Your task to perform on an android device: turn vacation reply on in the gmail app Image 0: 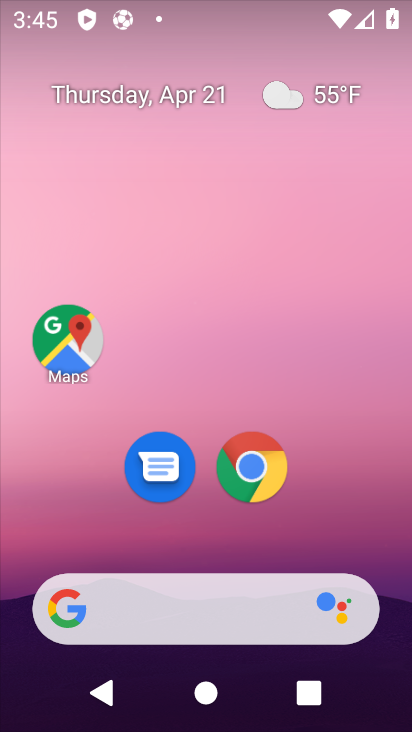
Step 0: press home button
Your task to perform on an android device: turn vacation reply on in the gmail app Image 1: 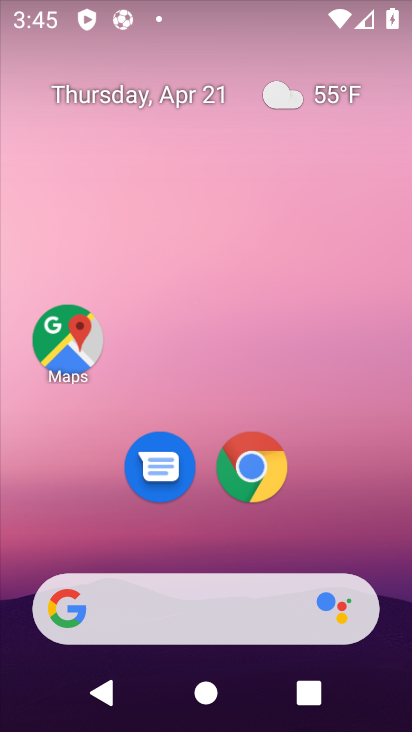
Step 1: drag from (225, 544) to (211, 238)
Your task to perform on an android device: turn vacation reply on in the gmail app Image 2: 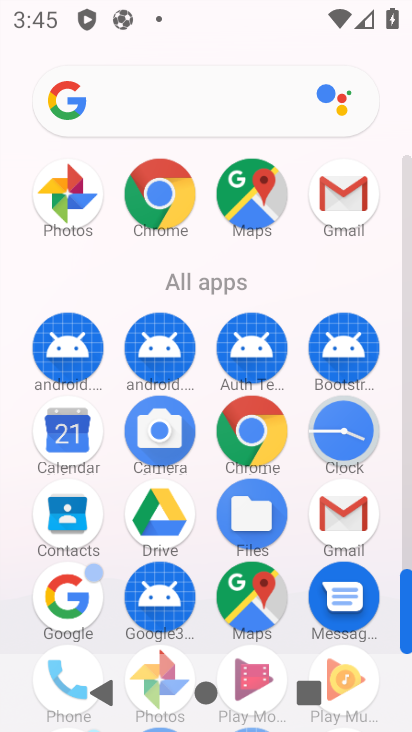
Step 2: drag from (257, 568) to (246, 266)
Your task to perform on an android device: turn vacation reply on in the gmail app Image 3: 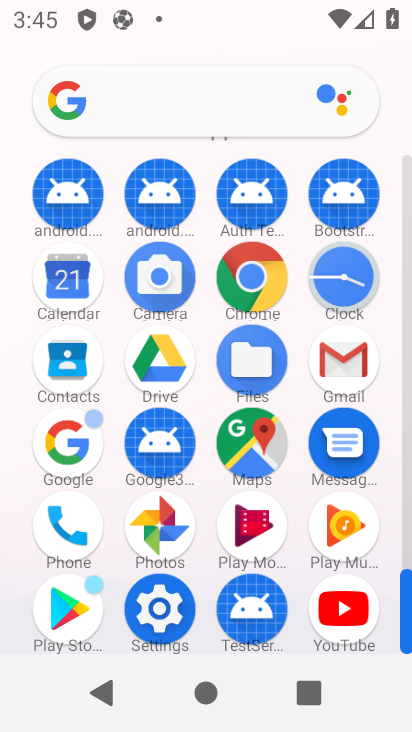
Step 3: drag from (237, 251) to (245, 384)
Your task to perform on an android device: turn vacation reply on in the gmail app Image 4: 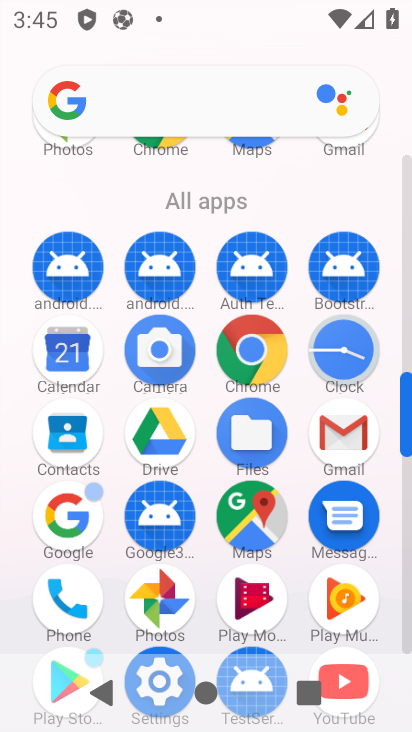
Step 4: click (333, 426)
Your task to perform on an android device: turn vacation reply on in the gmail app Image 5: 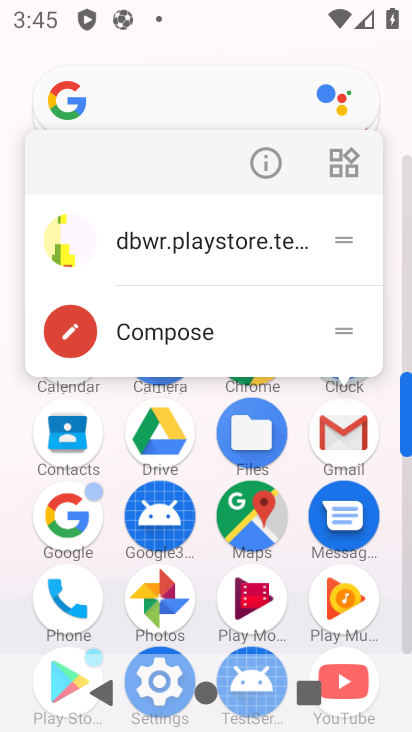
Step 5: click (342, 424)
Your task to perform on an android device: turn vacation reply on in the gmail app Image 6: 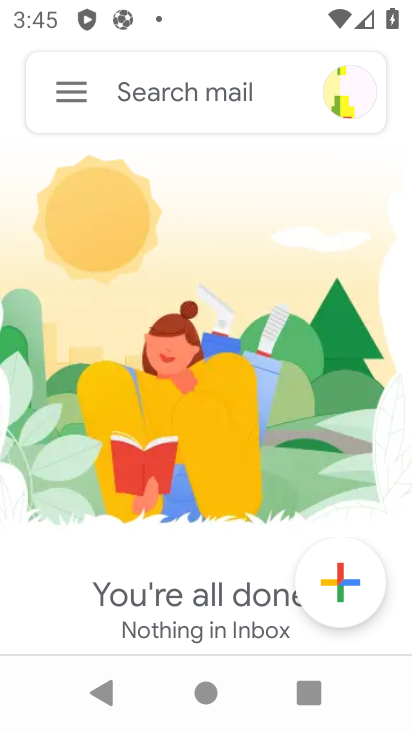
Step 6: click (52, 103)
Your task to perform on an android device: turn vacation reply on in the gmail app Image 7: 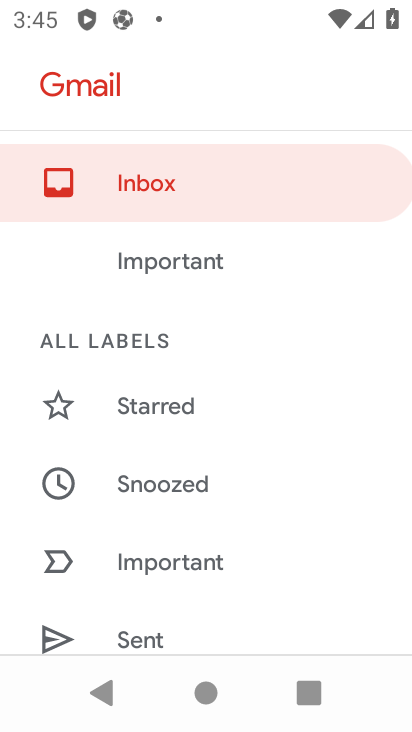
Step 7: drag from (202, 566) to (183, 256)
Your task to perform on an android device: turn vacation reply on in the gmail app Image 8: 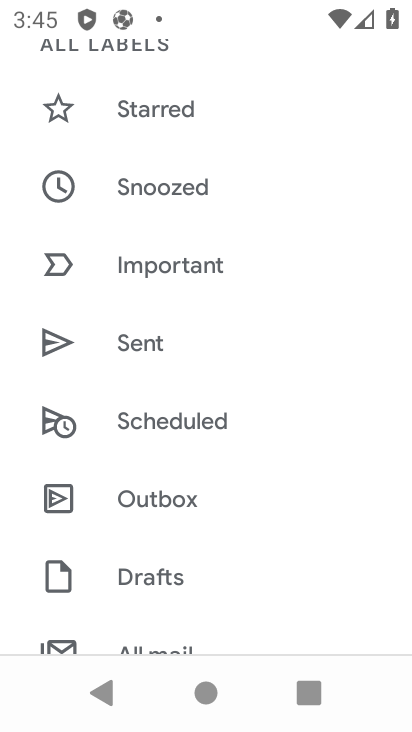
Step 8: drag from (186, 469) to (215, 188)
Your task to perform on an android device: turn vacation reply on in the gmail app Image 9: 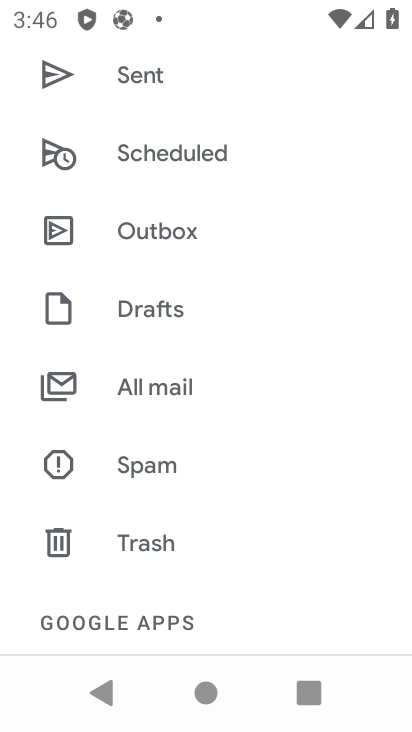
Step 9: drag from (193, 579) to (219, 210)
Your task to perform on an android device: turn vacation reply on in the gmail app Image 10: 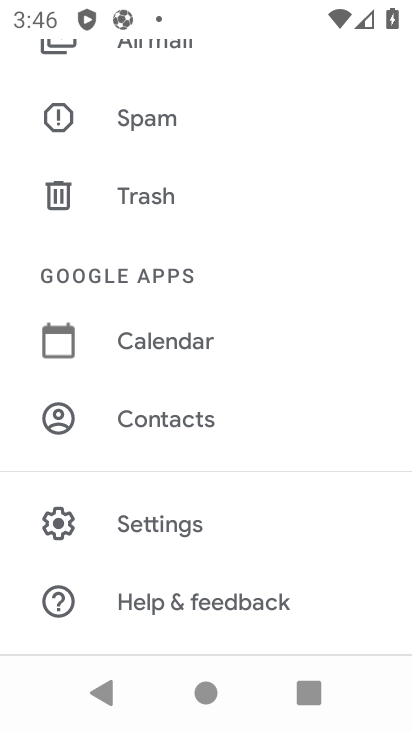
Step 10: drag from (180, 448) to (193, 267)
Your task to perform on an android device: turn vacation reply on in the gmail app Image 11: 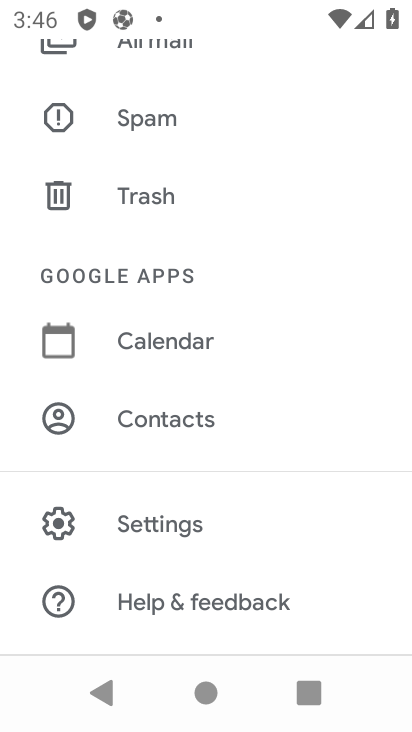
Step 11: click (177, 523)
Your task to perform on an android device: turn vacation reply on in the gmail app Image 12: 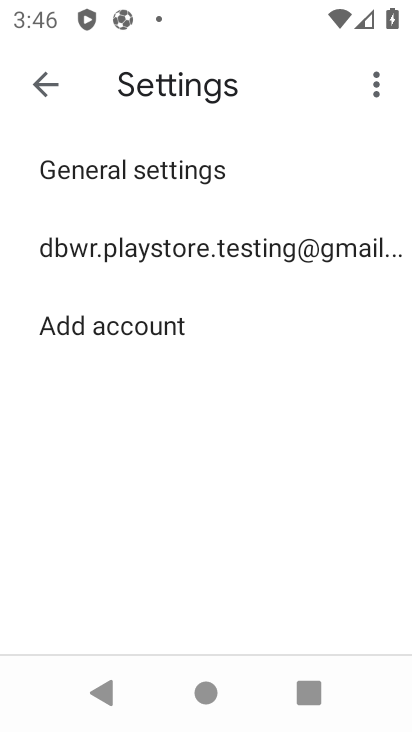
Step 12: click (167, 172)
Your task to perform on an android device: turn vacation reply on in the gmail app Image 13: 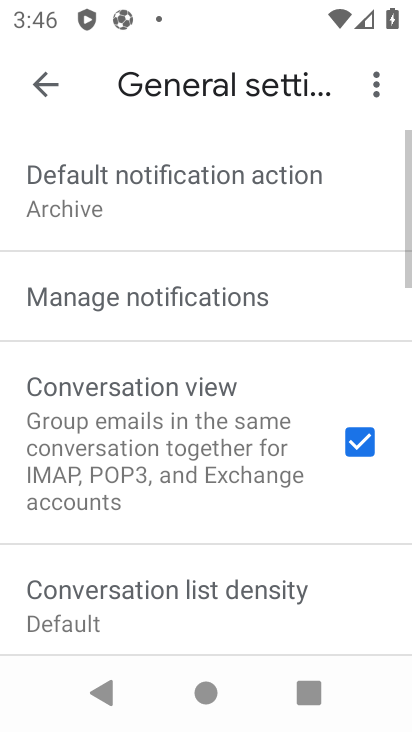
Step 13: task complete